Your task to perform on an android device: delete browsing data in the chrome app Image 0: 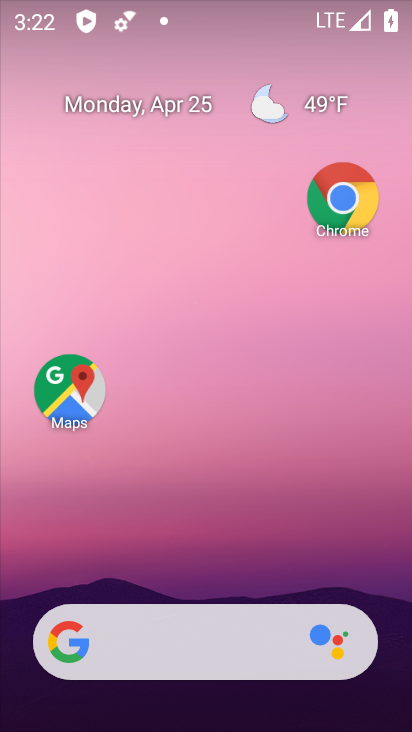
Step 0: click (341, 202)
Your task to perform on an android device: delete browsing data in the chrome app Image 1: 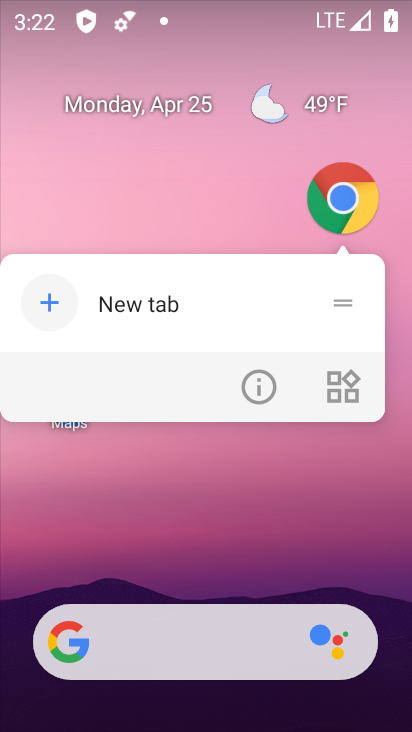
Step 1: click (350, 204)
Your task to perform on an android device: delete browsing data in the chrome app Image 2: 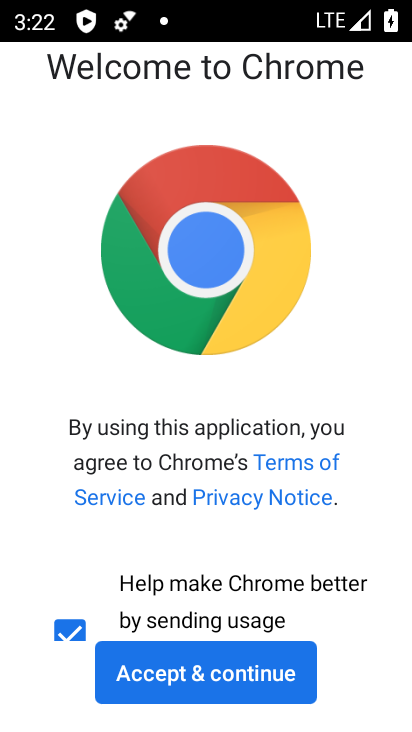
Step 2: click (212, 681)
Your task to perform on an android device: delete browsing data in the chrome app Image 3: 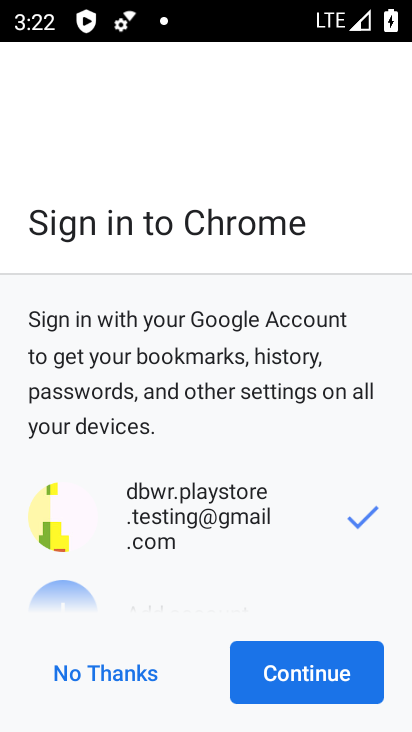
Step 3: click (279, 682)
Your task to perform on an android device: delete browsing data in the chrome app Image 4: 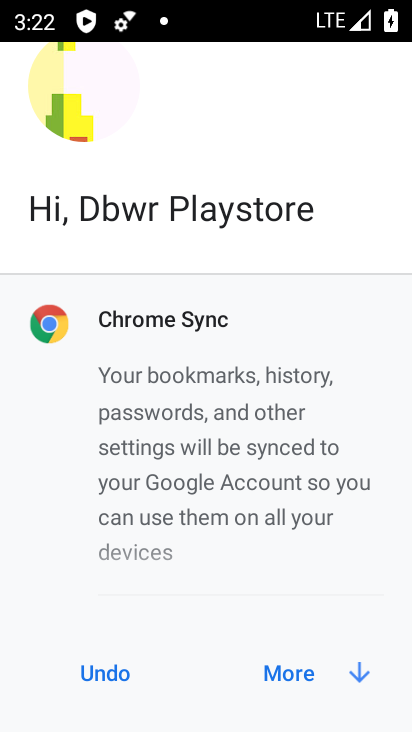
Step 4: click (278, 684)
Your task to perform on an android device: delete browsing data in the chrome app Image 5: 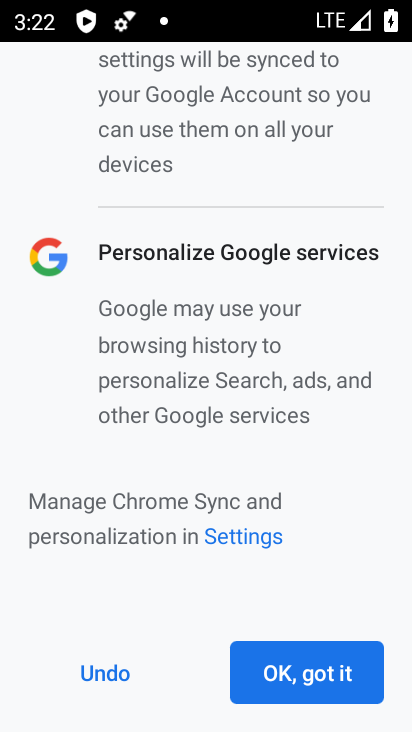
Step 5: click (288, 685)
Your task to perform on an android device: delete browsing data in the chrome app Image 6: 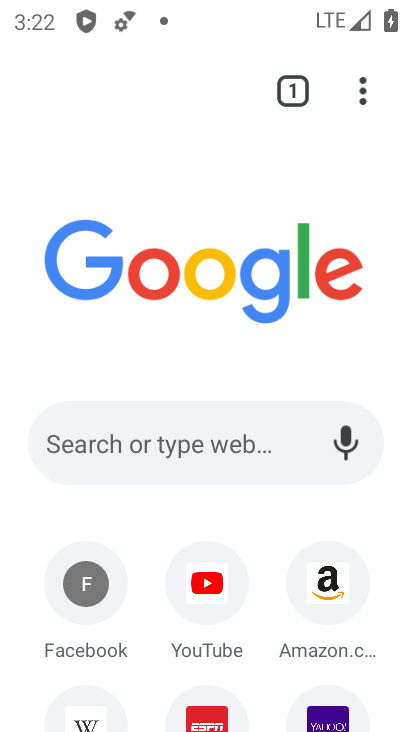
Step 6: drag from (363, 89) to (126, 547)
Your task to perform on an android device: delete browsing data in the chrome app Image 7: 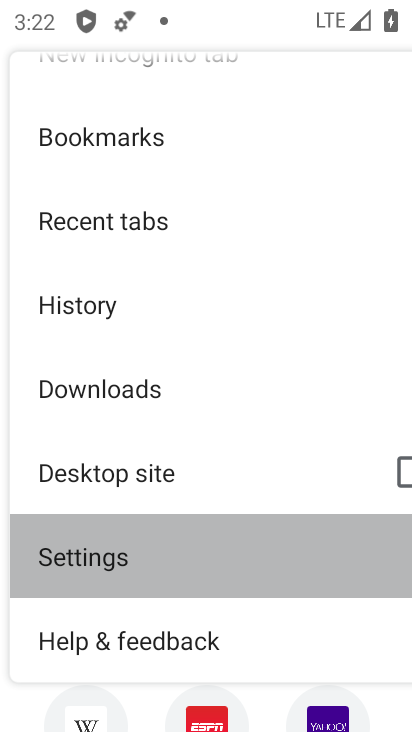
Step 7: click (126, 547)
Your task to perform on an android device: delete browsing data in the chrome app Image 8: 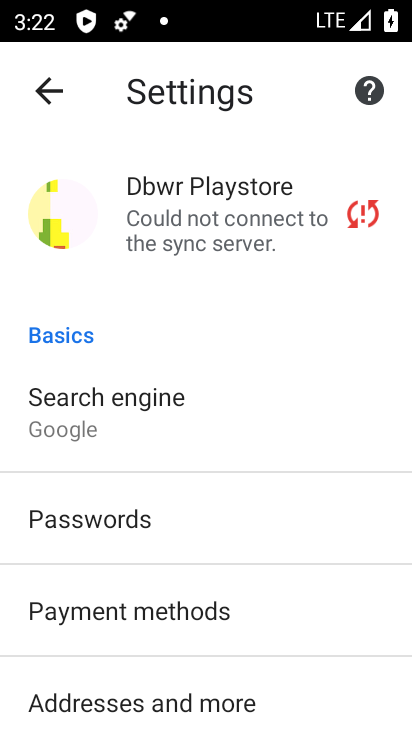
Step 8: drag from (164, 643) to (322, 204)
Your task to perform on an android device: delete browsing data in the chrome app Image 9: 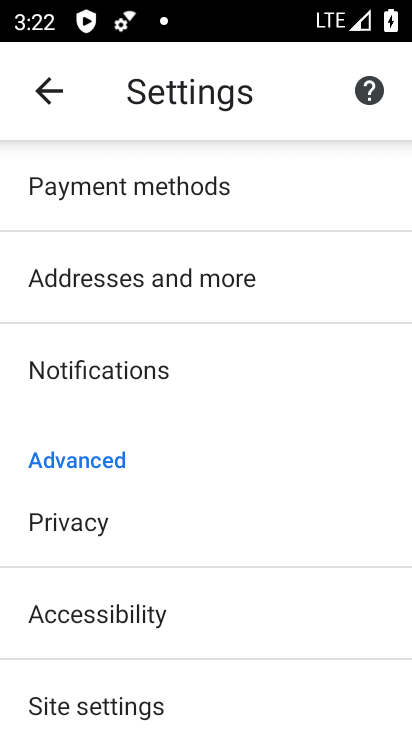
Step 9: click (96, 523)
Your task to perform on an android device: delete browsing data in the chrome app Image 10: 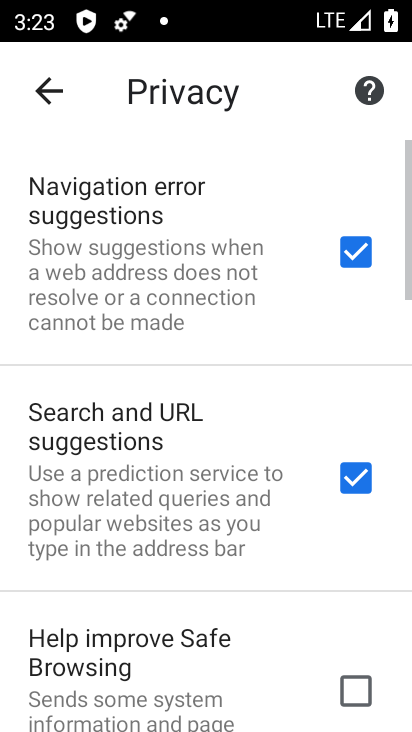
Step 10: drag from (135, 664) to (284, 194)
Your task to perform on an android device: delete browsing data in the chrome app Image 11: 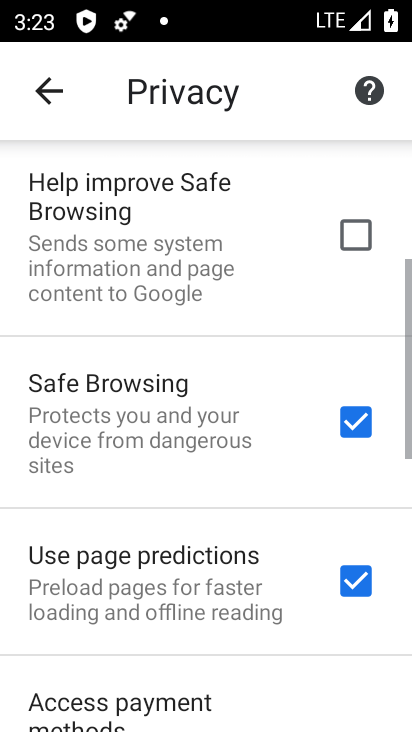
Step 11: drag from (176, 623) to (355, 102)
Your task to perform on an android device: delete browsing data in the chrome app Image 12: 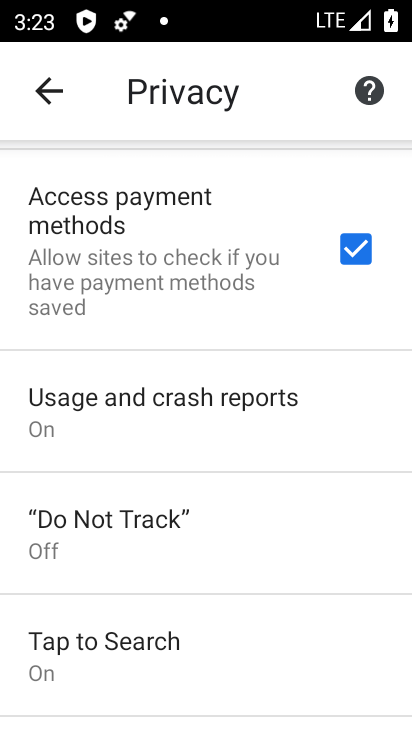
Step 12: drag from (200, 628) to (350, 107)
Your task to perform on an android device: delete browsing data in the chrome app Image 13: 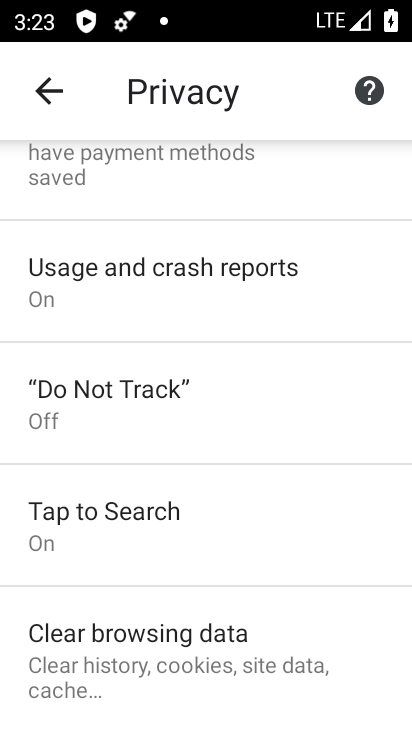
Step 13: click (188, 625)
Your task to perform on an android device: delete browsing data in the chrome app Image 14: 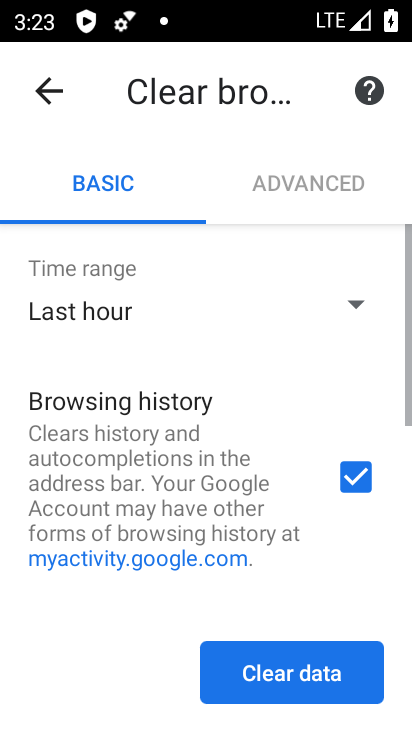
Step 14: drag from (247, 496) to (334, 187)
Your task to perform on an android device: delete browsing data in the chrome app Image 15: 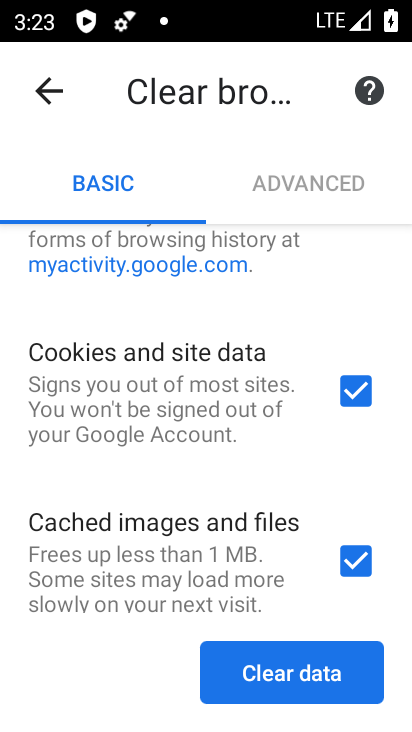
Step 15: click (289, 677)
Your task to perform on an android device: delete browsing data in the chrome app Image 16: 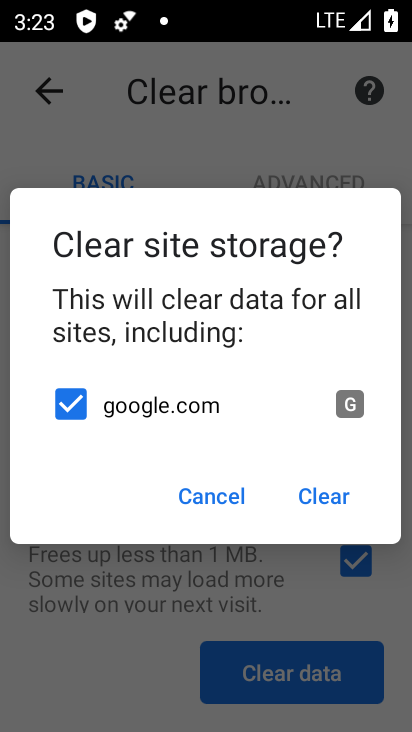
Step 16: click (321, 497)
Your task to perform on an android device: delete browsing data in the chrome app Image 17: 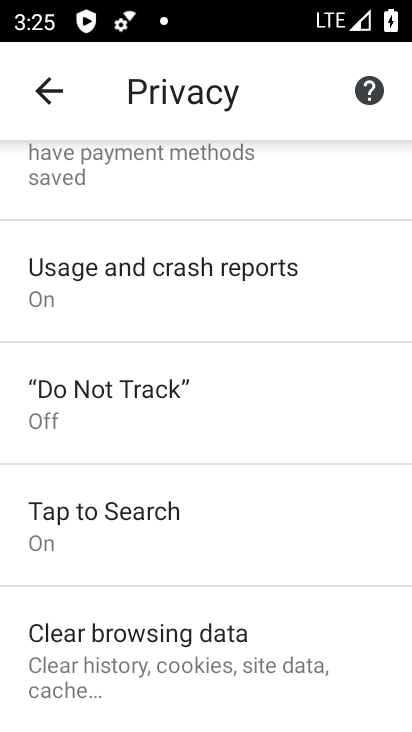
Step 17: task complete